Your task to perform on an android device: Is it going to rain this weekend? Image 0: 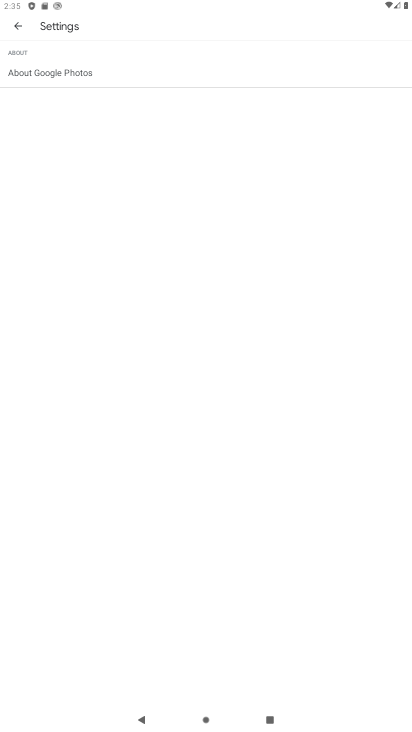
Step 0: click (409, 356)
Your task to perform on an android device: Is it going to rain this weekend? Image 1: 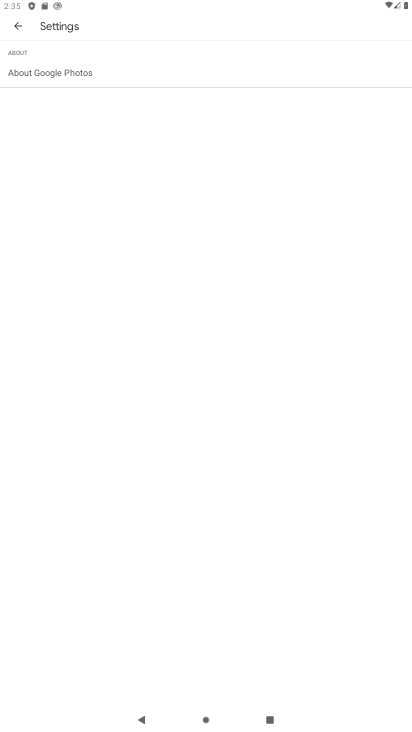
Step 1: press back button
Your task to perform on an android device: Is it going to rain this weekend? Image 2: 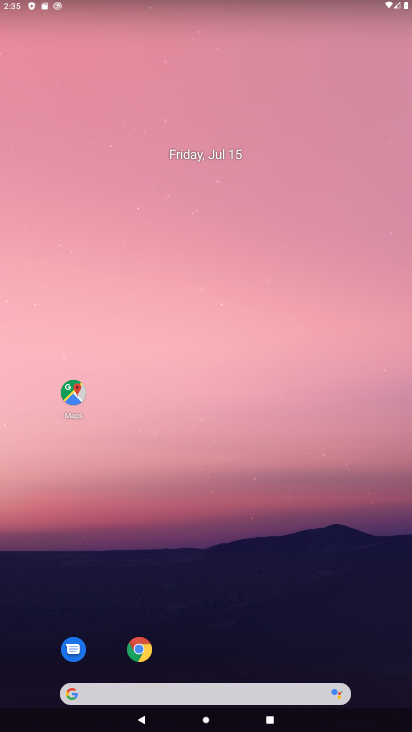
Step 2: drag from (226, 98) to (217, 38)
Your task to perform on an android device: Is it going to rain this weekend? Image 3: 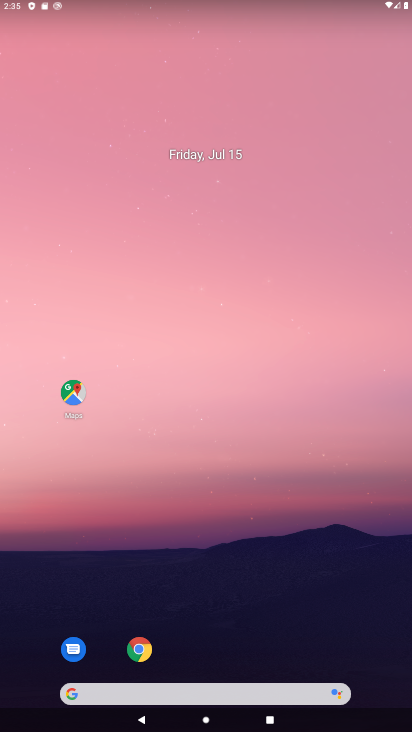
Step 3: drag from (201, 397) to (167, 26)
Your task to perform on an android device: Is it going to rain this weekend? Image 4: 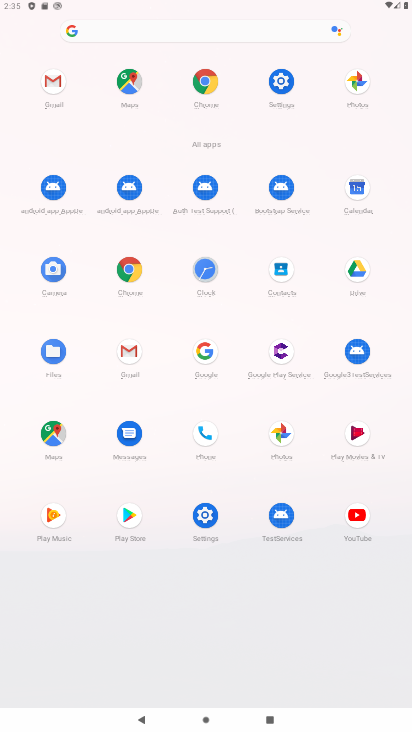
Step 4: click (213, 76)
Your task to perform on an android device: Is it going to rain this weekend? Image 5: 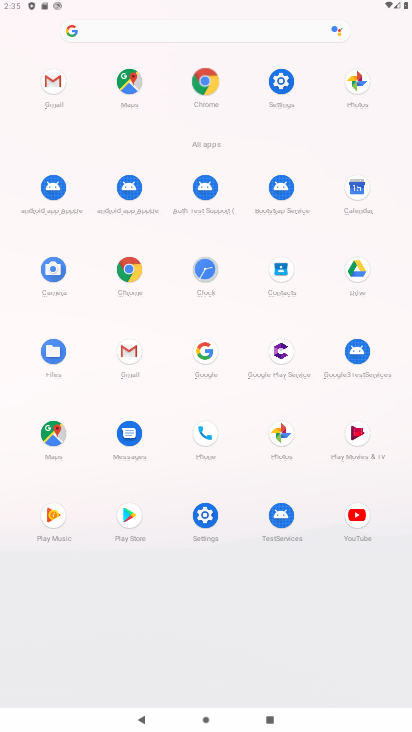
Step 5: click (213, 76)
Your task to perform on an android device: Is it going to rain this weekend? Image 6: 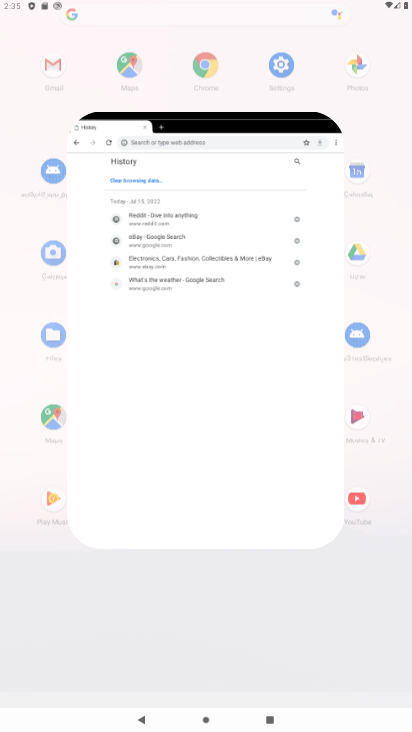
Step 6: click (213, 76)
Your task to perform on an android device: Is it going to rain this weekend? Image 7: 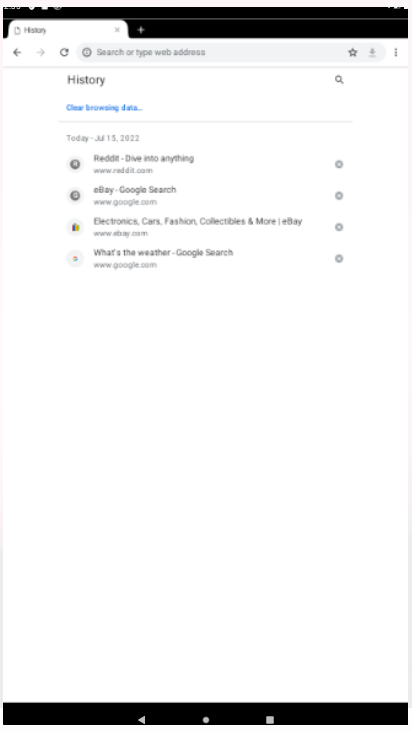
Step 7: click (213, 76)
Your task to perform on an android device: Is it going to rain this weekend? Image 8: 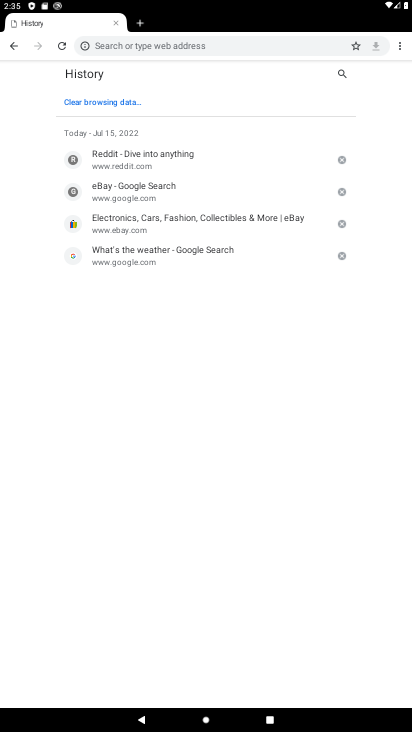
Step 8: click (137, 22)
Your task to perform on an android device: Is it going to rain this weekend? Image 9: 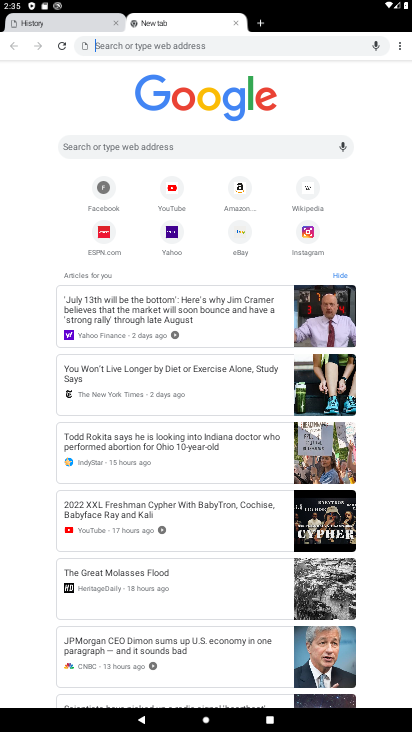
Step 9: type "is tit going to rain this weekend?"
Your task to perform on an android device: Is it going to rain this weekend? Image 10: 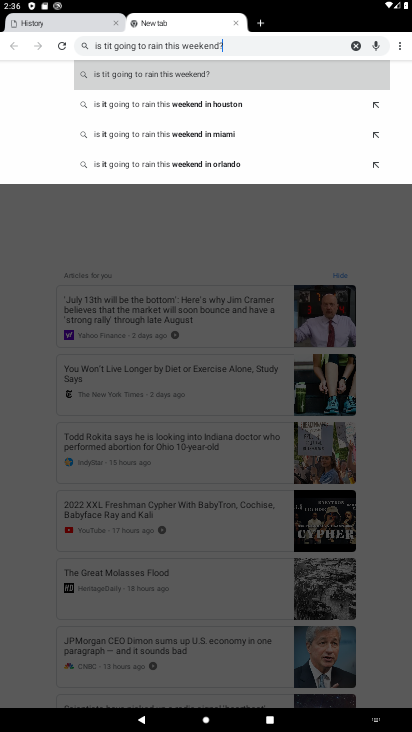
Step 10: click (182, 96)
Your task to perform on an android device: Is it going to rain this weekend? Image 11: 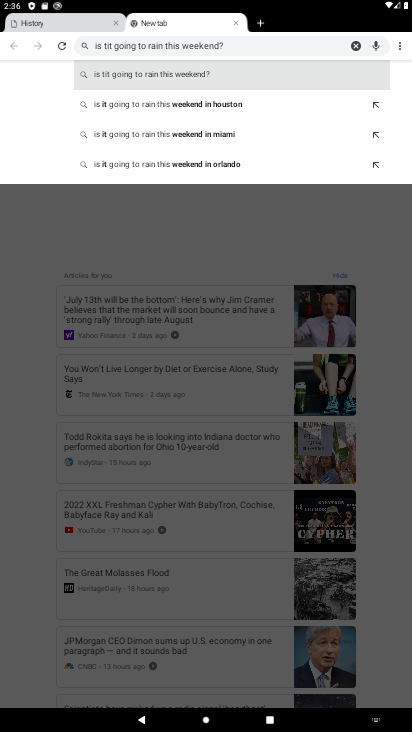
Step 11: click (182, 96)
Your task to perform on an android device: Is it going to rain this weekend? Image 12: 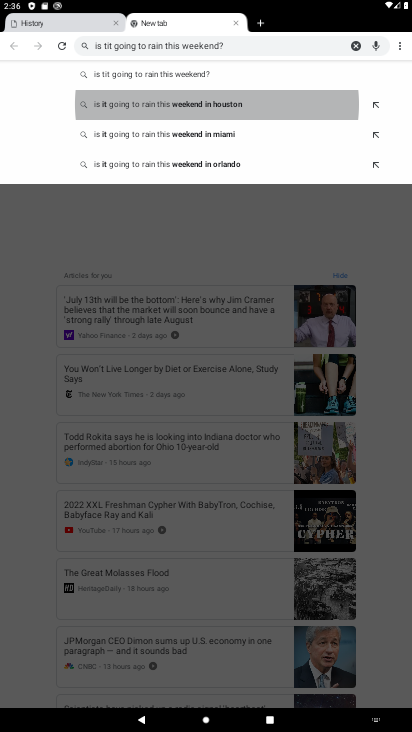
Step 12: click (182, 95)
Your task to perform on an android device: Is it going to rain this weekend? Image 13: 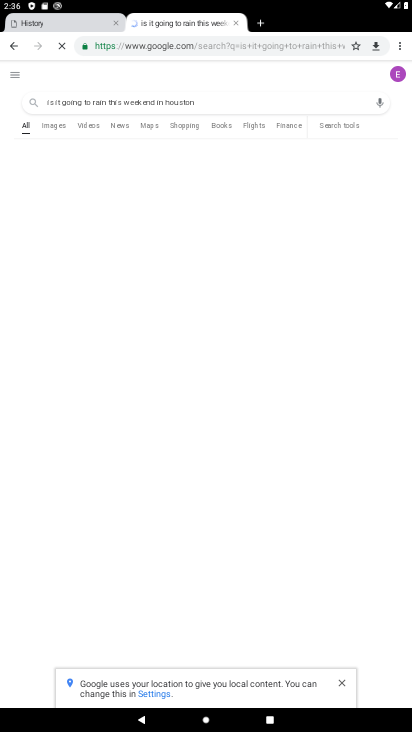
Step 13: task complete